Your task to perform on an android device: Go to ESPN.com Image 0: 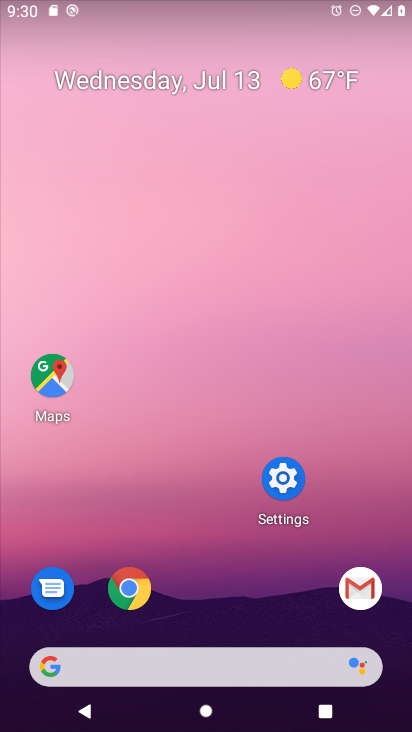
Step 0: click (125, 585)
Your task to perform on an android device: Go to ESPN.com Image 1: 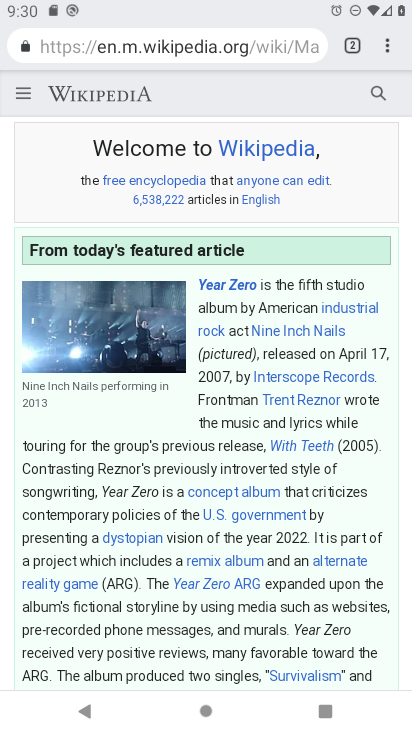
Step 1: click (349, 48)
Your task to perform on an android device: Go to ESPN.com Image 2: 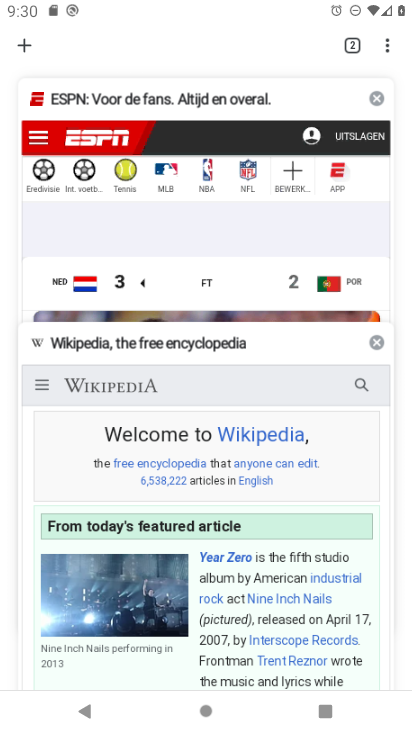
Step 2: click (25, 46)
Your task to perform on an android device: Go to ESPN.com Image 3: 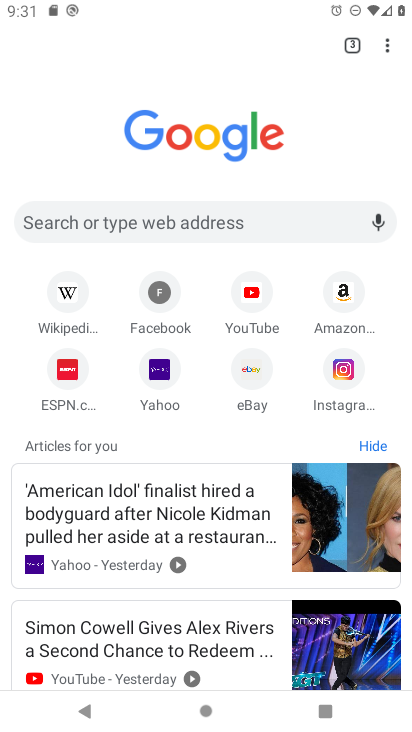
Step 3: click (77, 376)
Your task to perform on an android device: Go to ESPN.com Image 4: 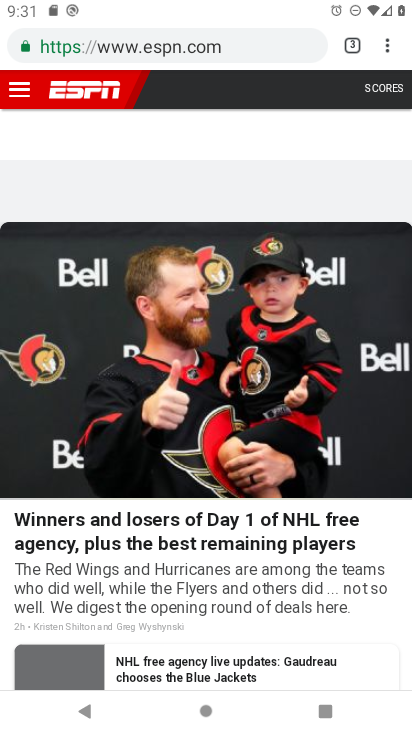
Step 4: task complete